Your task to perform on an android device: turn on the 12-hour format for clock Image 0: 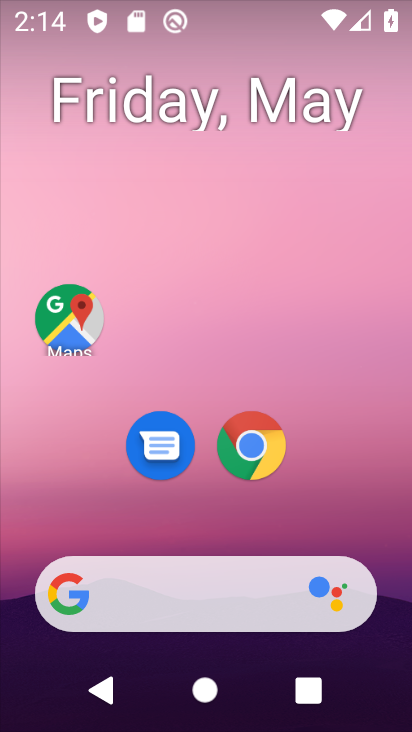
Step 0: drag from (322, 513) to (286, 201)
Your task to perform on an android device: turn on the 12-hour format for clock Image 1: 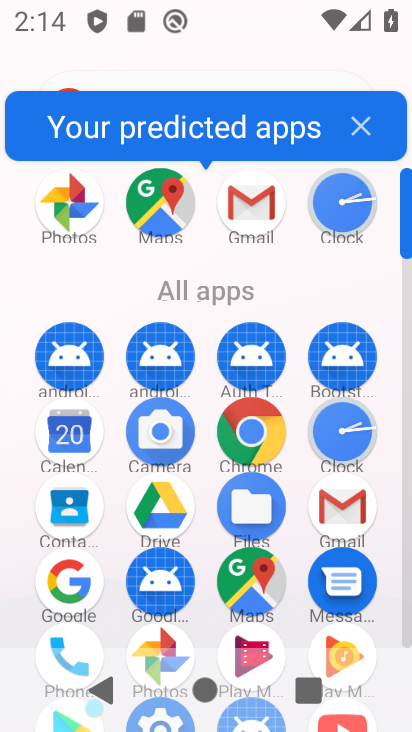
Step 1: click (353, 442)
Your task to perform on an android device: turn on the 12-hour format for clock Image 2: 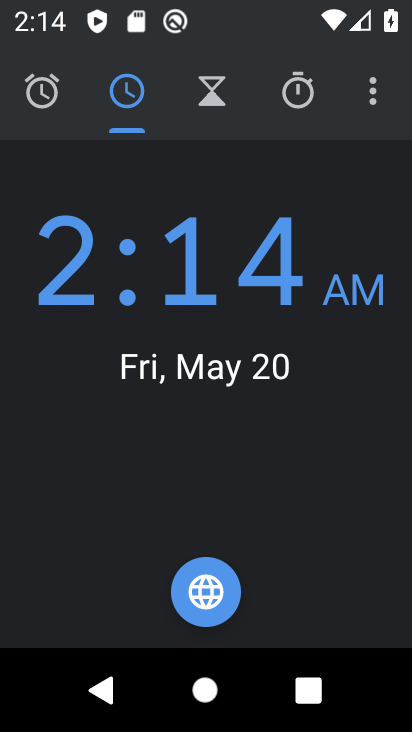
Step 2: click (383, 79)
Your task to perform on an android device: turn on the 12-hour format for clock Image 3: 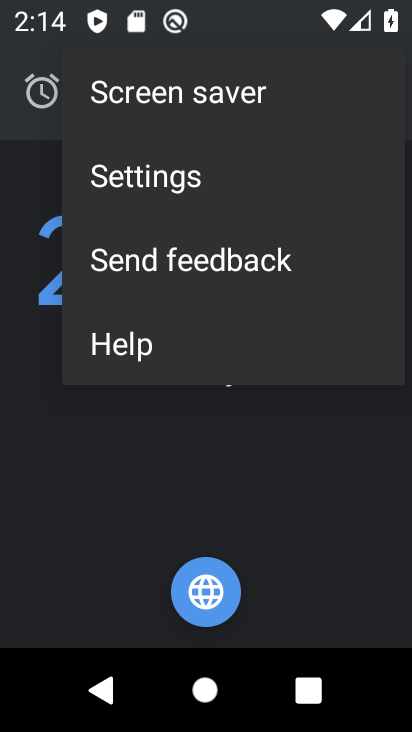
Step 3: click (199, 190)
Your task to perform on an android device: turn on the 12-hour format for clock Image 4: 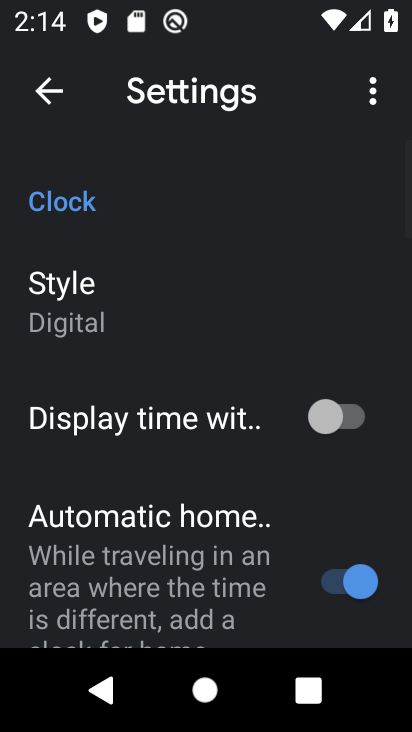
Step 4: drag from (215, 572) to (215, 223)
Your task to perform on an android device: turn on the 12-hour format for clock Image 5: 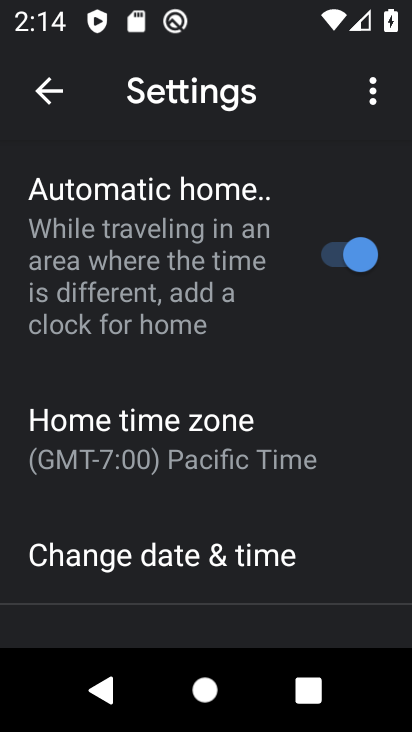
Step 5: click (259, 544)
Your task to perform on an android device: turn on the 12-hour format for clock Image 6: 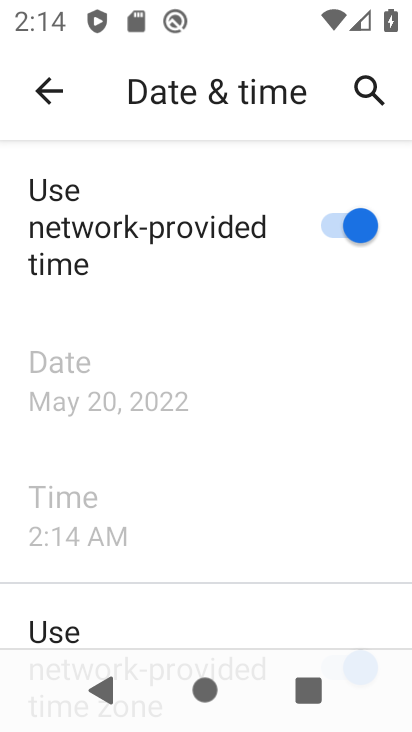
Step 6: task complete